Your task to perform on an android device: change the clock display to show seconds Image 0: 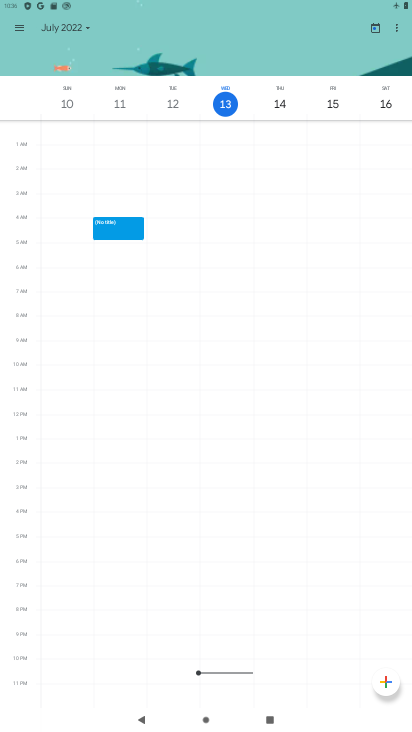
Step 0: press home button
Your task to perform on an android device: change the clock display to show seconds Image 1: 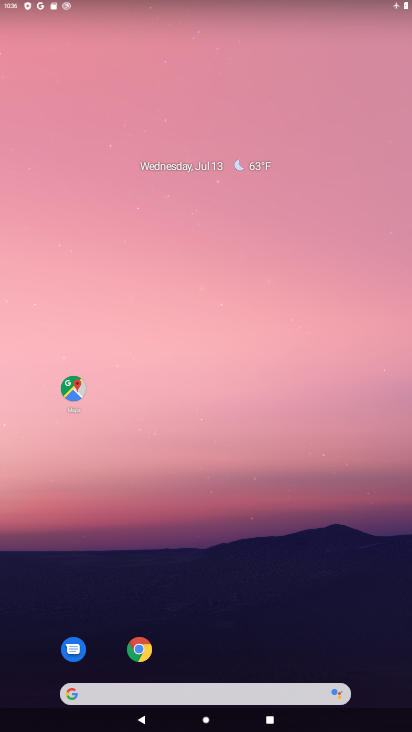
Step 1: drag from (252, 669) to (254, 264)
Your task to perform on an android device: change the clock display to show seconds Image 2: 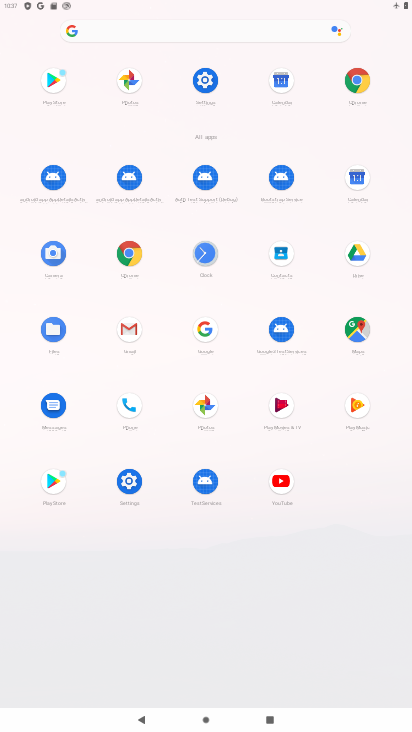
Step 2: click (196, 240)
Your task to perform on an android device: change the clock display to show seconds Image 3: 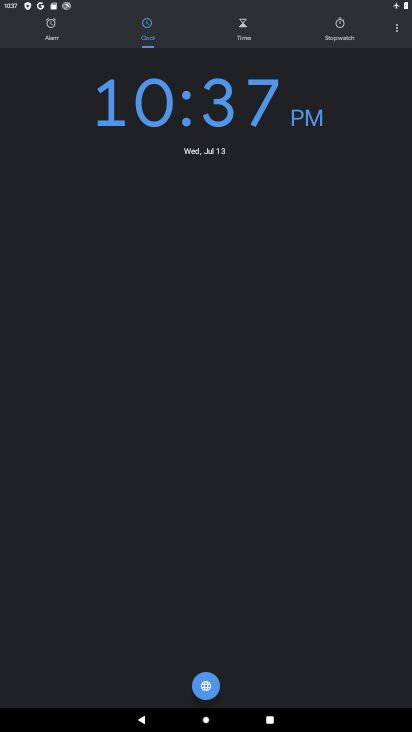
Step 3: click (396, 22)
Your task to perform on an android device: change the clock display to show seconds Image 4: 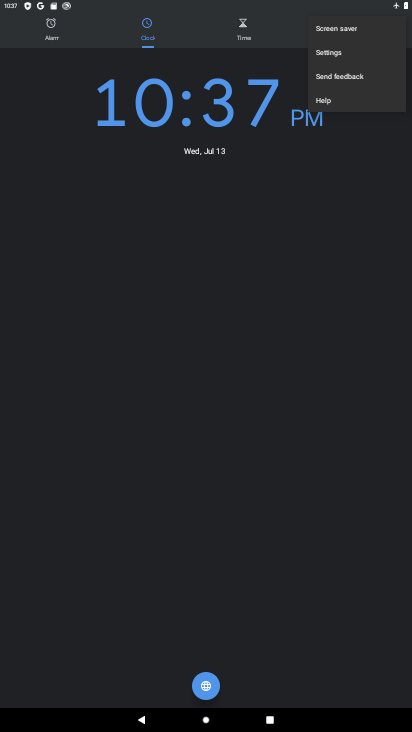
Step 4: click (321, 54)
Your task to perform on an android device: change the clock display to show seconds Image 5: 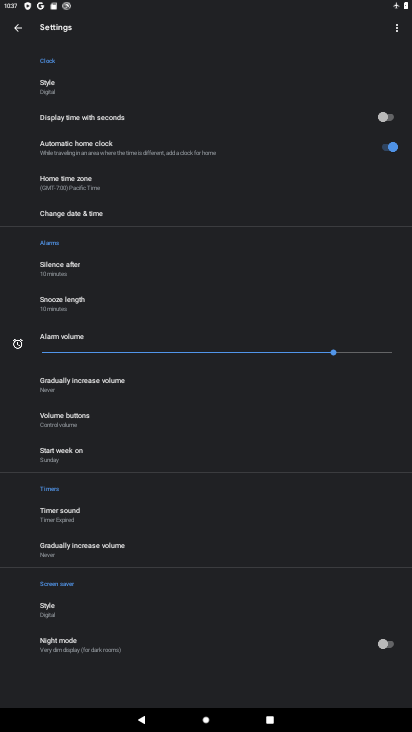
Step 5: drag from (154, 117) to (162, 202)
Your task to perform on an android device: change the clock display to show seconds Image 6: 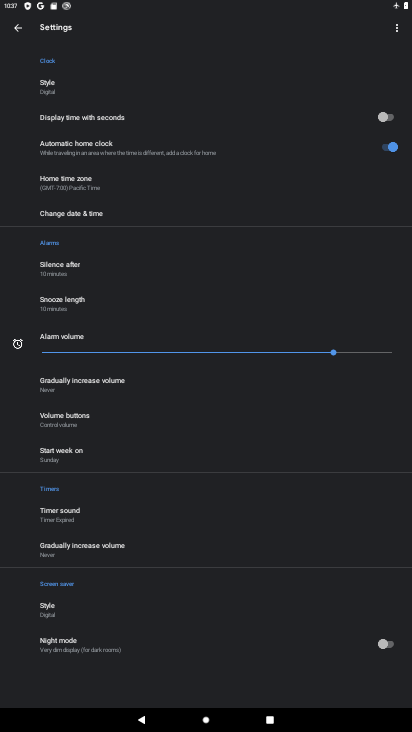
Step 6: click (395, 113)
Your task to perform on an android device: change the clock display to show seconds Image 7: 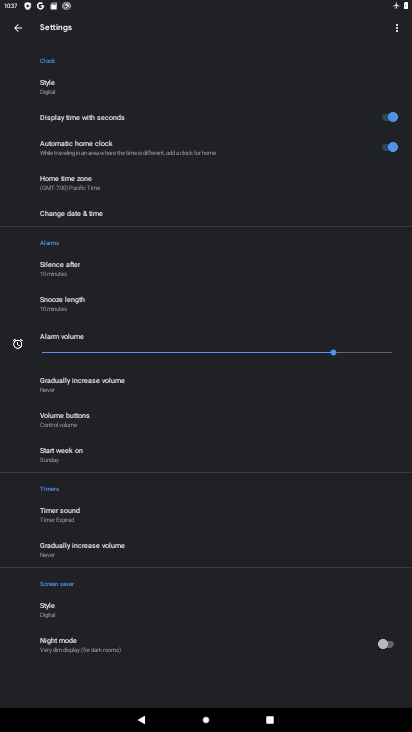
Step 7: task complete